Your task to perform on an android device: Go to Android settings Image 0: 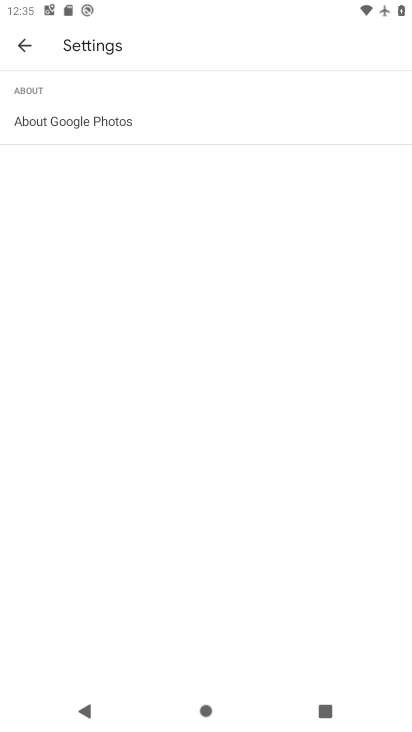
Step 0: press home button
Your task to perform on an android device: Go to Android settings Image 1: 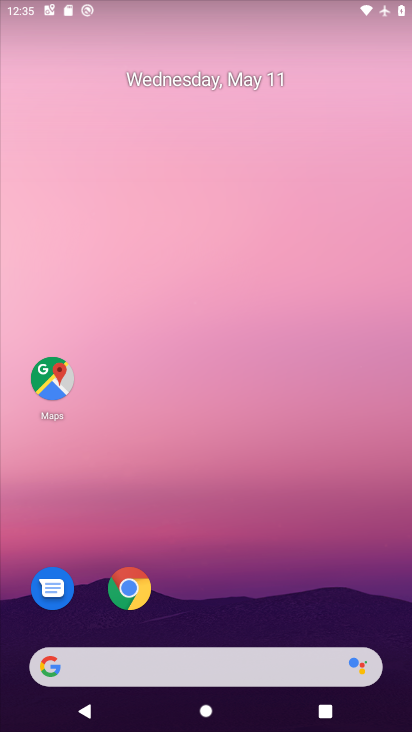
Step 1: drag from (228, 659) to (258, 373)
Your task to perform on an android device: Go to Android settings Image 2: 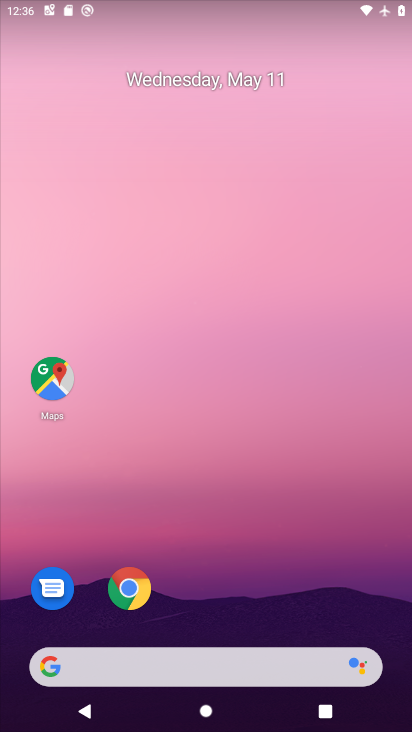
Step 2: drag from (215, 650) to (215, 317)
Your task to perform on an android device: Go to Android settings Image 3: 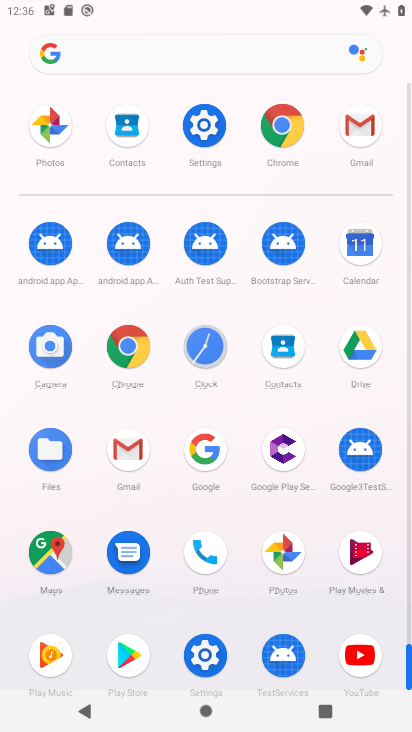
Step 3: click (211, 126)
Your task to perform on an android device: Go to Android settings Image 4: 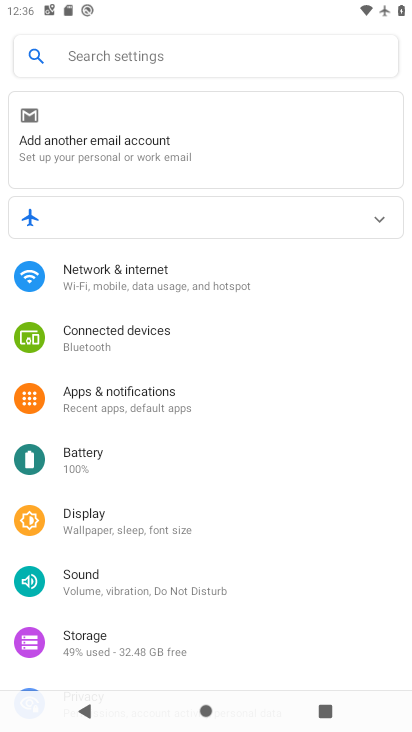
Step 4: task complete